Your task to perform on an android device: turn on showing notifications on the lock screen Image 0: 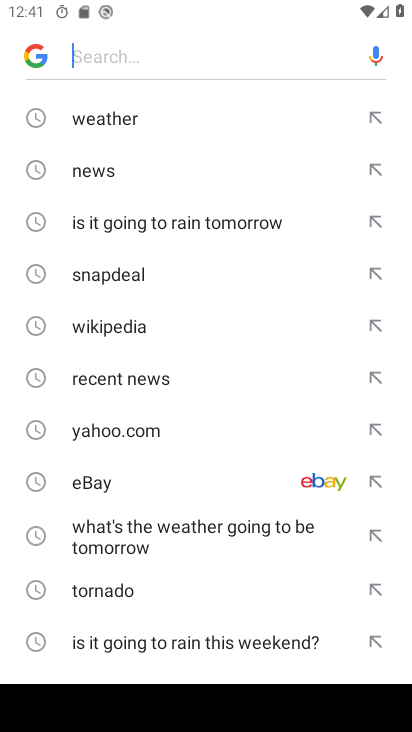
Step 0: press home button
Your task to perform on an android device: turn on showing notifications on the lock screen Image 1: 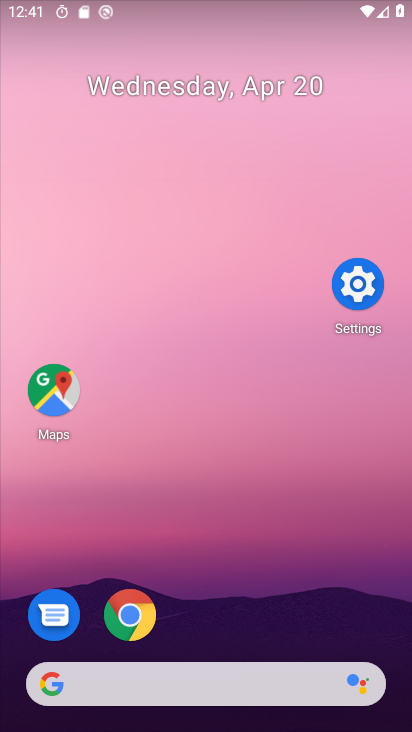
Step 1: drag from (169, 637) to (298, 200)
Your task to perform on an android device: turn on showing notifications on the lock screen Image 2: 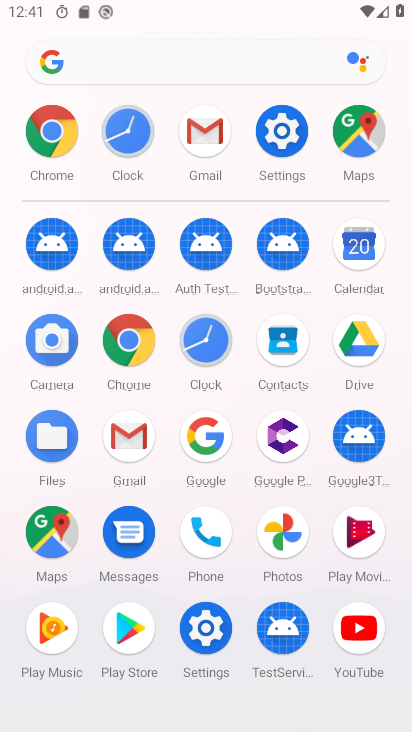
Step 2: click (283, 141)
Your task to perform on an android device: turn on showing notifications on the lock screen Image 3: 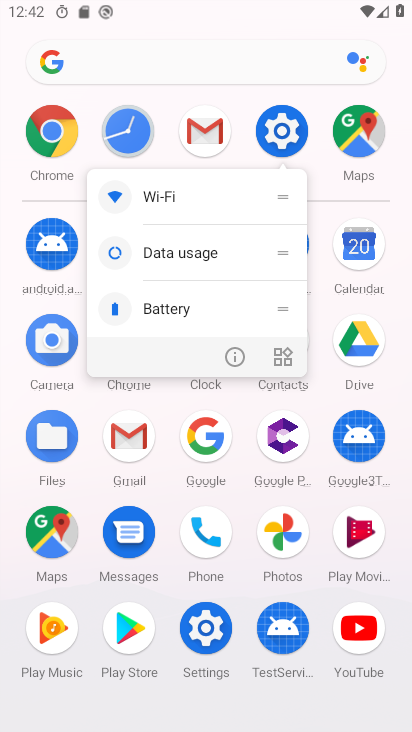
Step 3: click (238, 350)
Your task to perform on an android device: turn on showing notifications on the lock screen Image 4: 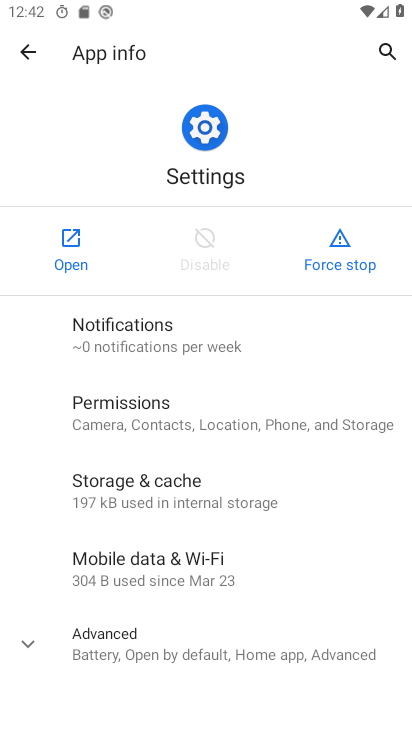
Step 4: click (103, 231)
Your task to perform on an android device: turn on showing notifications on the lock screen Image 5: 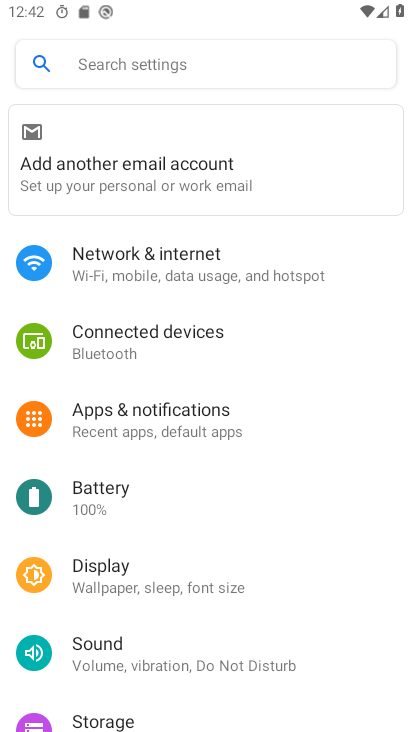
Step 5: click (120, 488)
Your task to perform on an android device: turn on showing notifications on the lock screen Image 6: 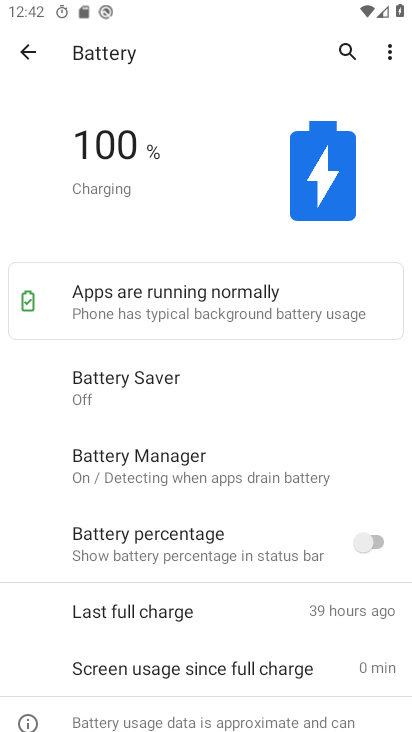
Step 6: click (30, 54)
Your task to perform on an android device: turn on showing notifications on the lock screen Image 7: 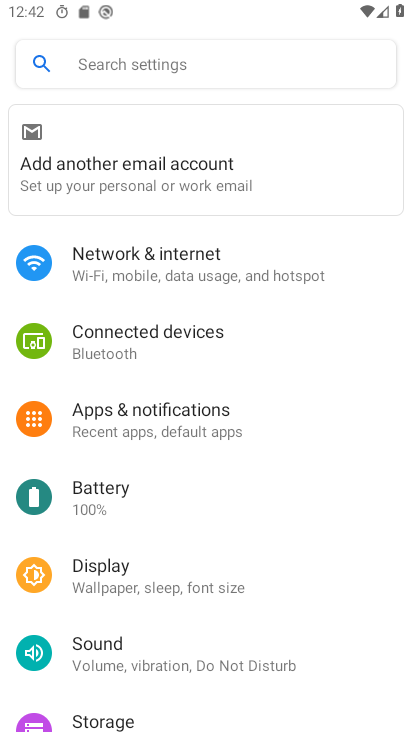
Step 7: click (176, 422)
Your task to perform on an android device: turn on showing notifications on the lock screen Image 8: 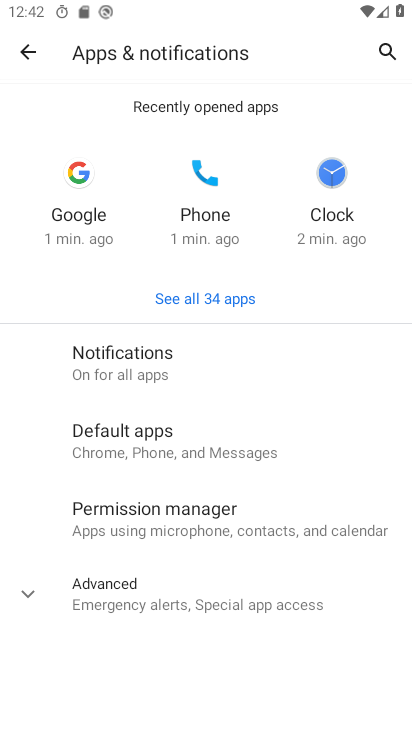
Step 8: click (178, 373)
Your task to perform on an android device: turn on showing notifications on the lock screen Image 9: 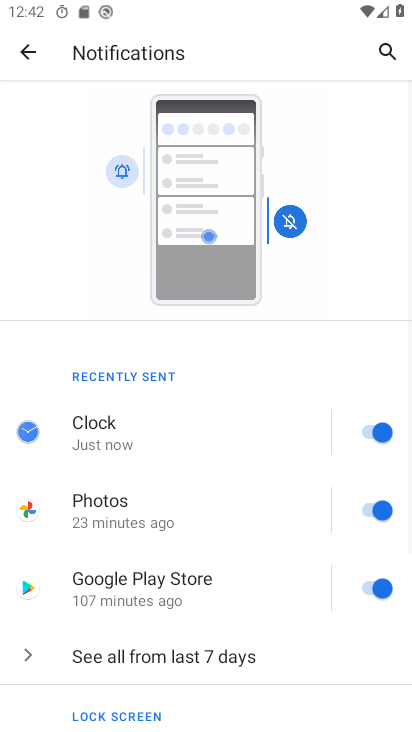
Step 9: drag from (254, 557) to (375, 119)
Your task to perform on an android device: turn on showing notifications on the lock screen Image 10: 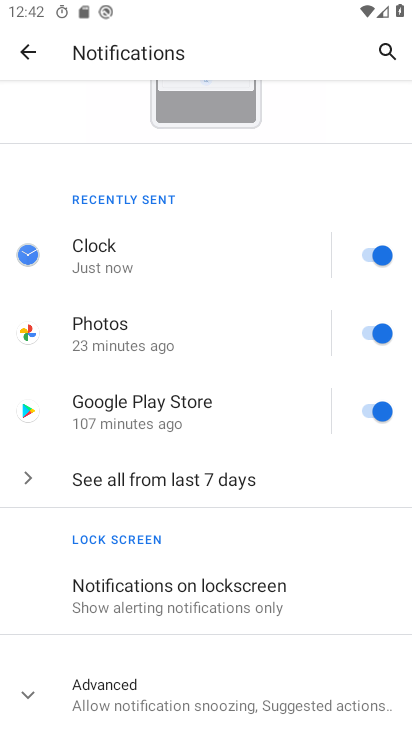
Step 10: click (198, 600)
Your task to perform on an android device: turn on showing notifications on the lock screen Image 11: 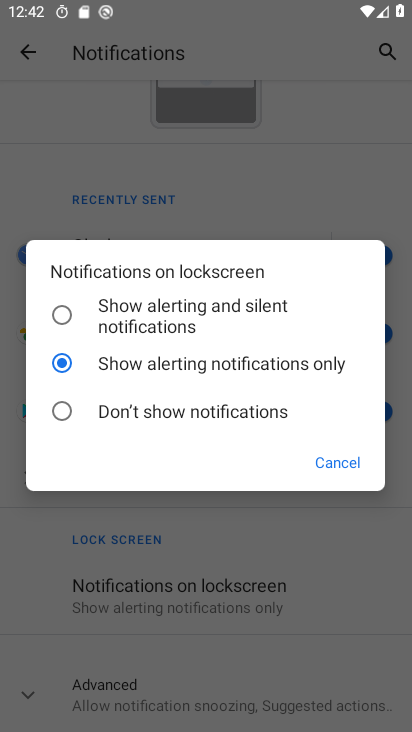
Step 11: click (185, 366)
Your task to perform on an android device: turn on showing notifications on the lock screen Image 12: 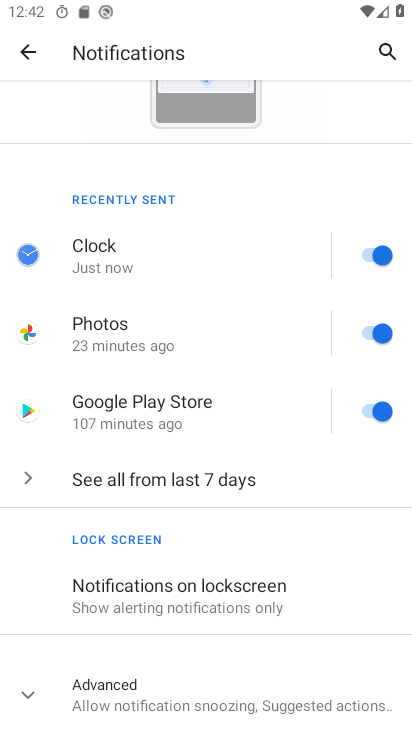
Step 12: drag from (223, 588) to (322, 177)
Your task to perform on an android device: turn on showing notifications on the lock screen Image 13: 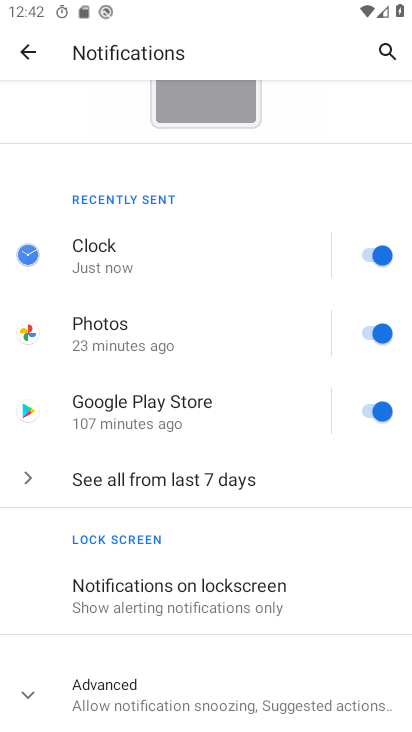
Step 13: drag from (218, 642) to (252, 430)
Your task to perform on an android device: turn on showing notifications on the lock screen Image 14: 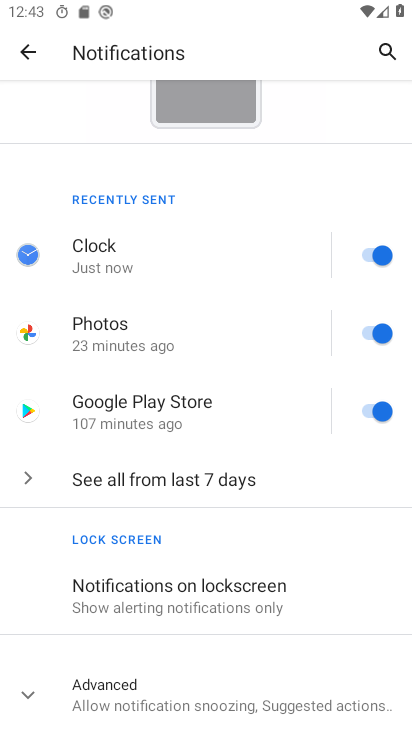
Step 14: drag from (241, 549) to (333, 105)
Your task to perform on an android device: turn on showing notifications on the lock screen Image 15: 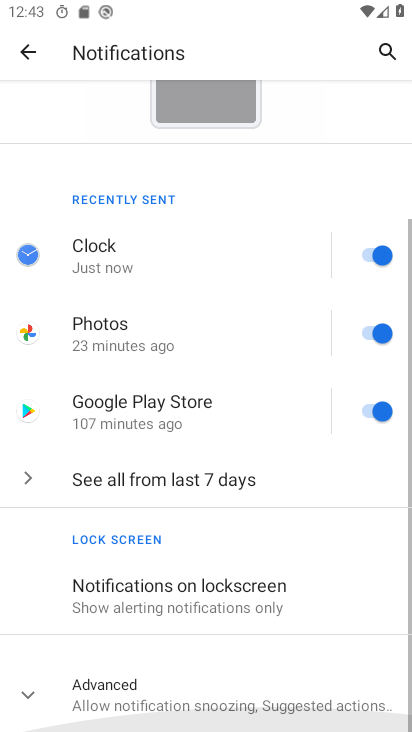
Step 15: drag from (262, 148) to (285, 726)
Your task to perform on an android device: turn on showing notifications on the lock screen Image 16: 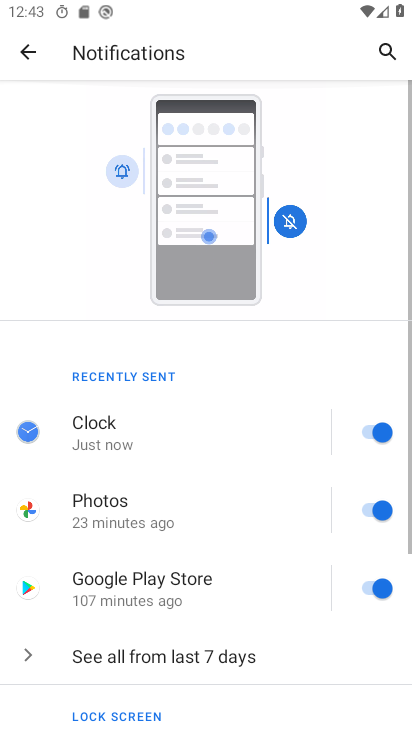
Step 16: drag from (267, 536) to (353, 86)
Your task to perform on an android device: turn on showing notifications on the lock screen Image 17: 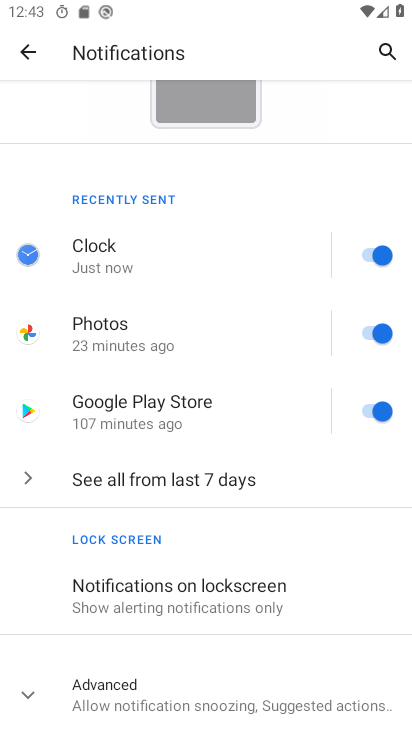
Step 17: click (223, 589)
Your task to perform on an android device: turn on showing notifications on the lock screen Image 18: 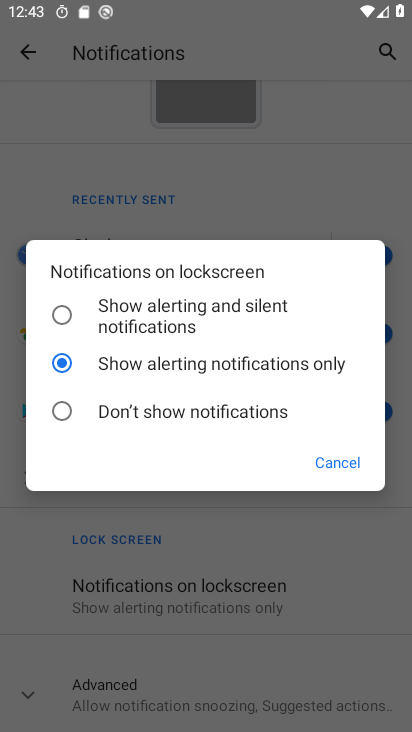
Step 18: task complete